Your task to perform on an android device: Go to Yahoo.com Image 0: 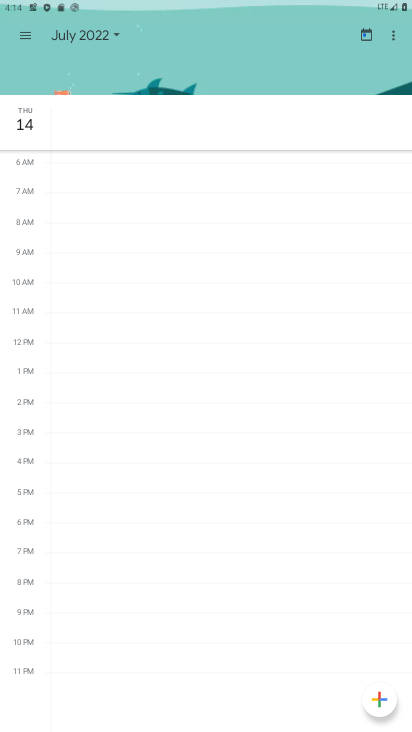
Step 0: press home button
Your task to perform on an android device: Go to Yahoo.com Image 1: 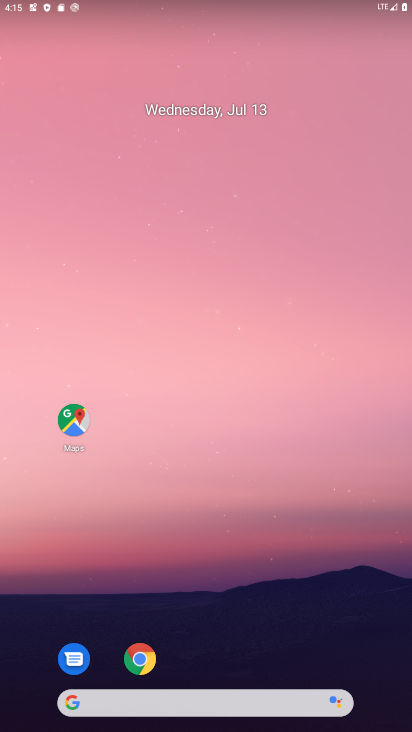
Step 1: click (140, 657)
Your task to perform on an android device: Go to Yahoo.com Image 2: 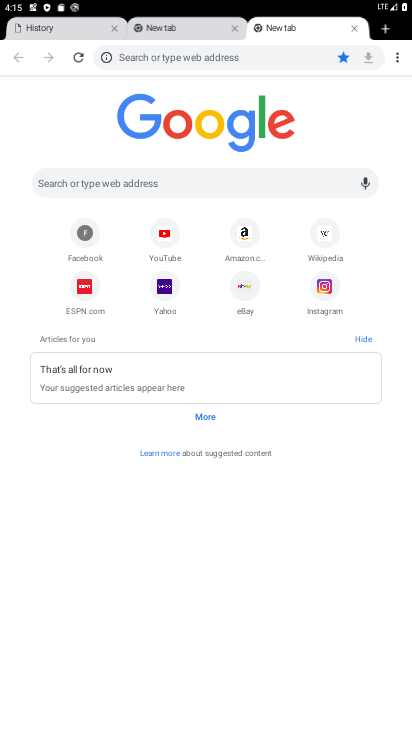
Step 2: click (161, 281)
Your task to perform on an android device: Go to Yahoo.com Image 3: 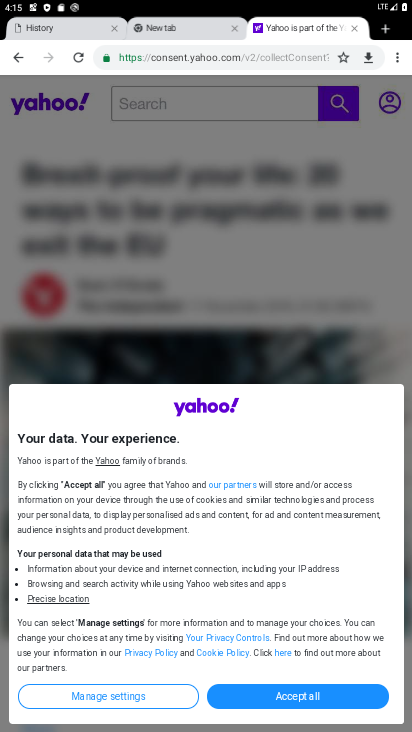
Step 3: click (294, 693)
Your task to perform on an android device: Go to Yahoo.com Image 4: 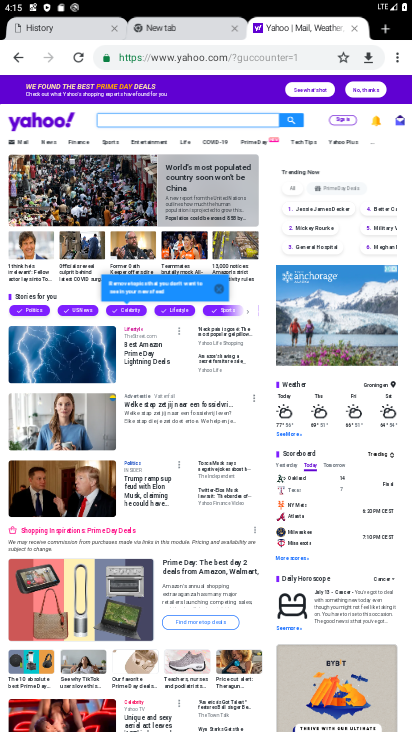
Step 4: task complete